Your task to perform on an android device: turn on javascript in the chrome app Image 0: 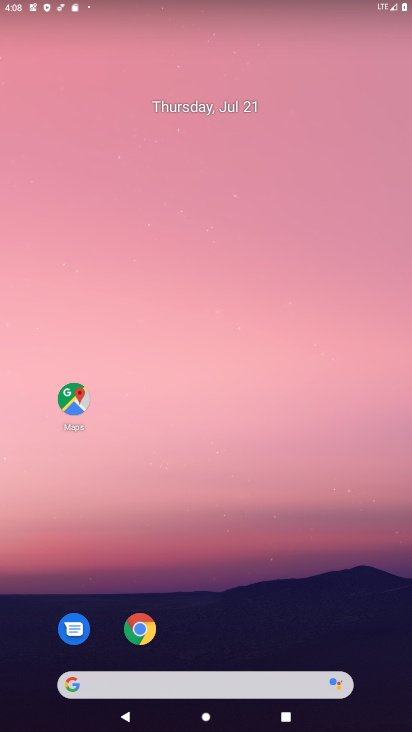
Step 0: click (139, 628)
Your task to perform on an android device: turn on javascript in the chrome app Image 1: 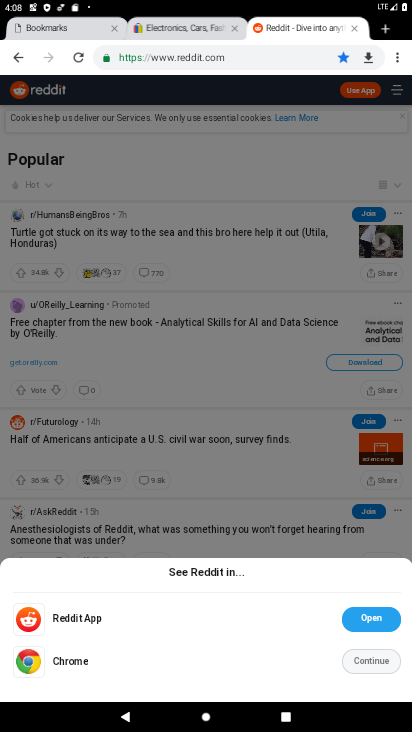
Step 1: click (393, 60)
Your task to perform on an android device: turn on javascript in the chrome app Image 2: 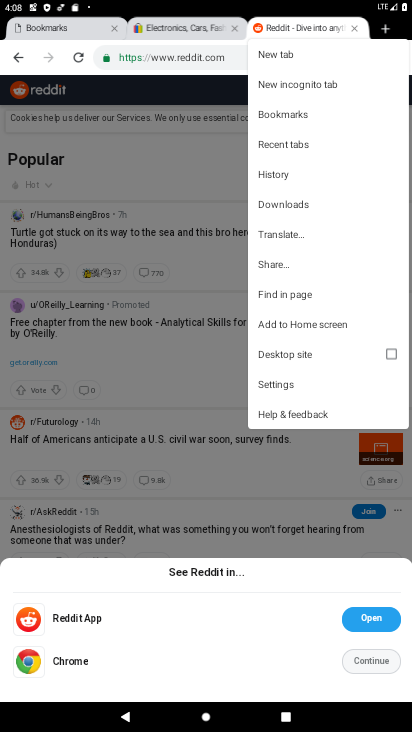
Step 2: click (291, 387)
Your task to perform on an android device: turn on javascript in the chrome app Image 3: 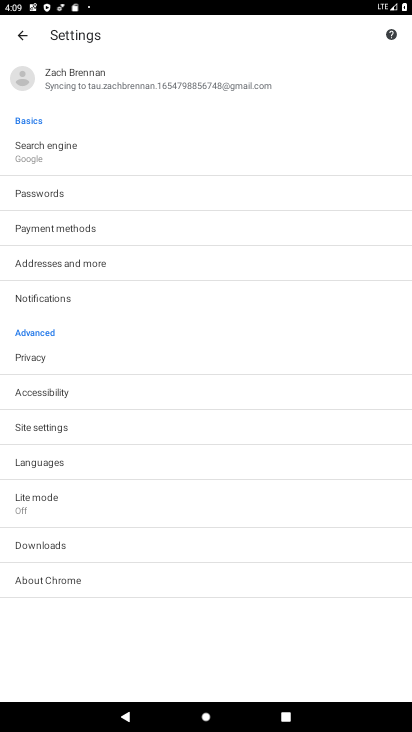
Step 3: click (119, 428)
Your task to perform on an android device: turn on javascript in the chrome app Image 4: 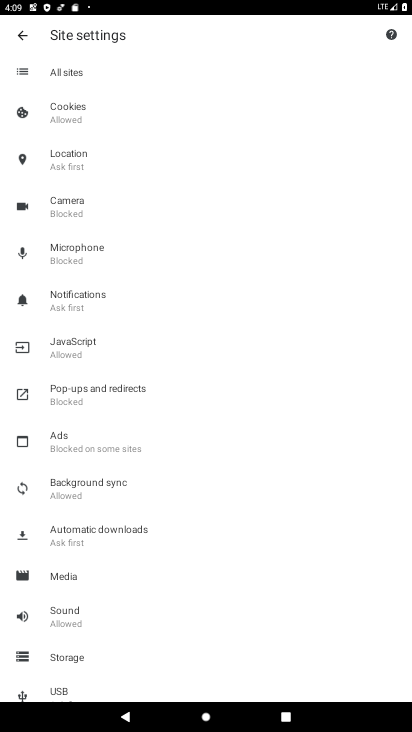
Step 4: click (100, 349)
Your task to perform on an android device: turn on javascript in the chrome app Image 5: 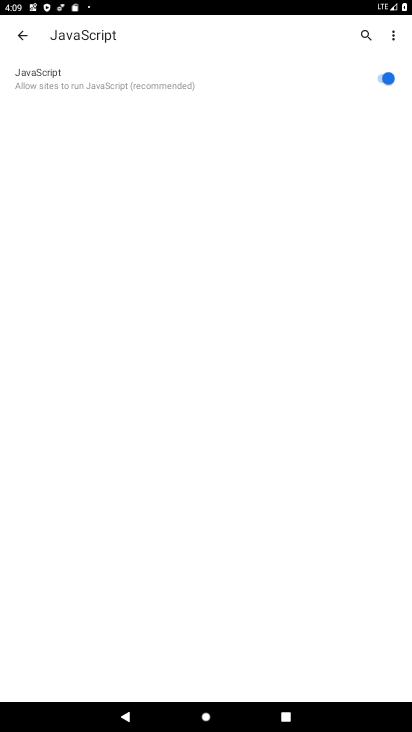
Step 5: task complete